Your task to perform on an android device: turn on sleep mode Image 0: 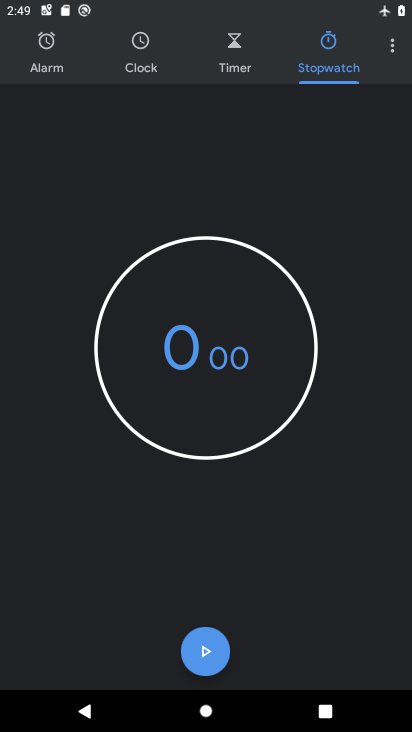
Step 0: press home button
Your task to perform on an android device: turn on sleep mode Image 1: 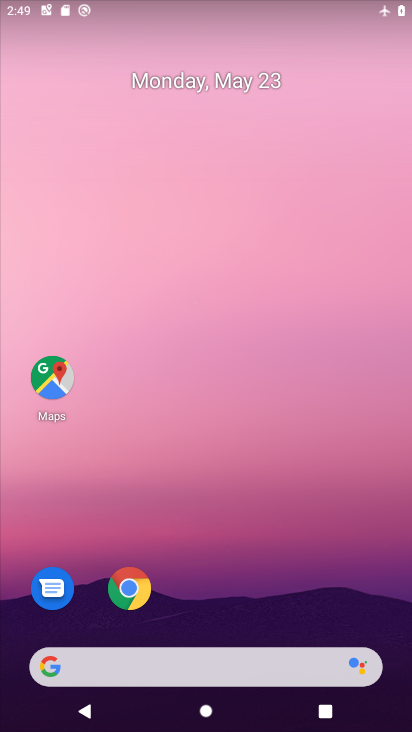
Step 1: drag from (181, 590) to (352, 16)
Your task to perform on an android device: turn on sleep mode Image 2: 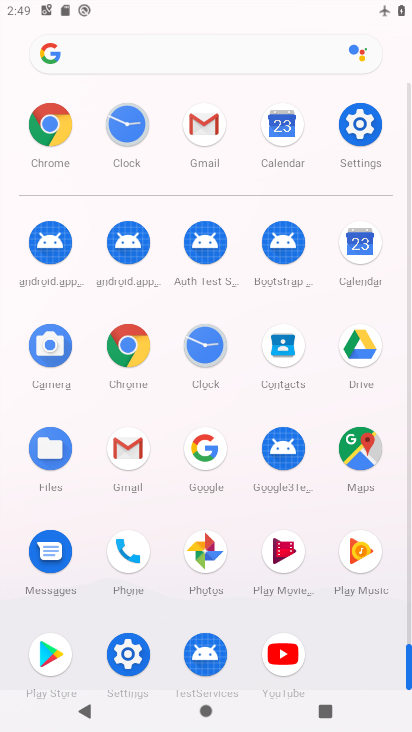
Step 2: click (361, 163)
Your task to perform on an android device: turn on sleep mode Image 3: 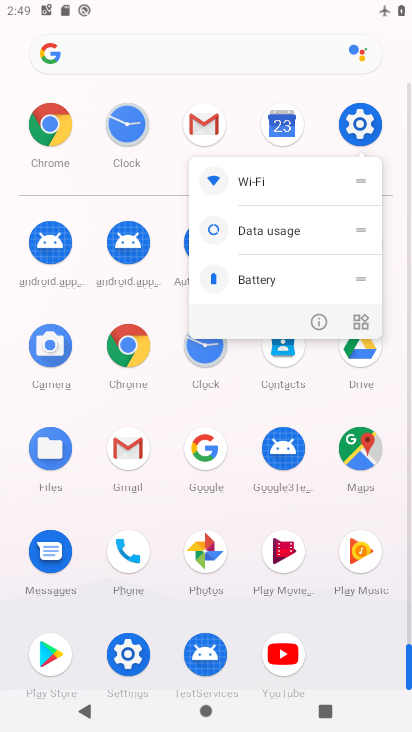
Step 3: click (364, 116)
Your task to perform on an android device: turn on sleep mode Image 4: 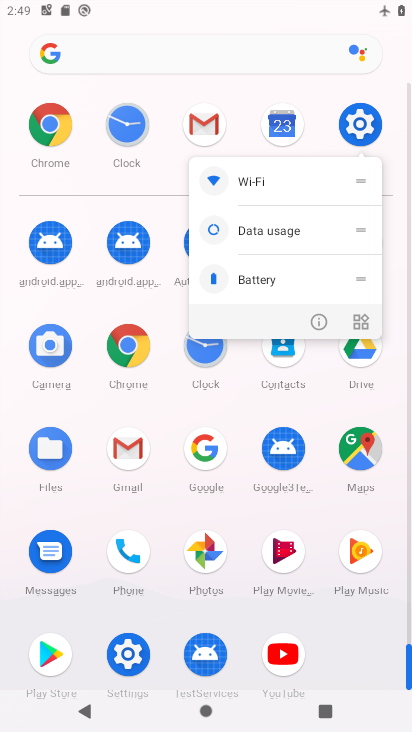
Step 4: click (317, 308)
Your task to perform on an android device: turn on sleep mode Image 5: 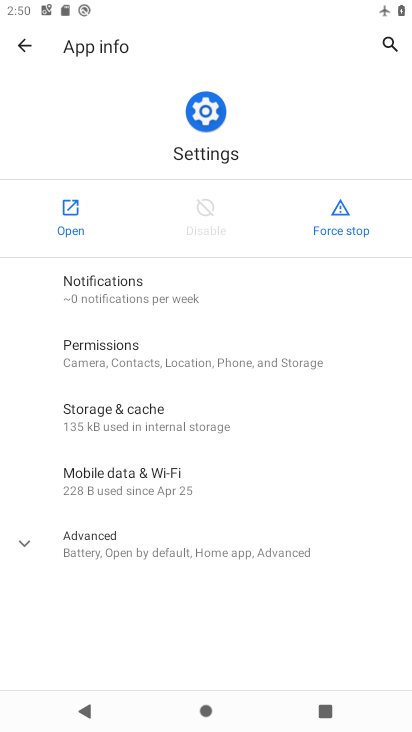
Step 5: click (65, 205)
Your task to perform on an android device: turn on sleep mode Image 6: 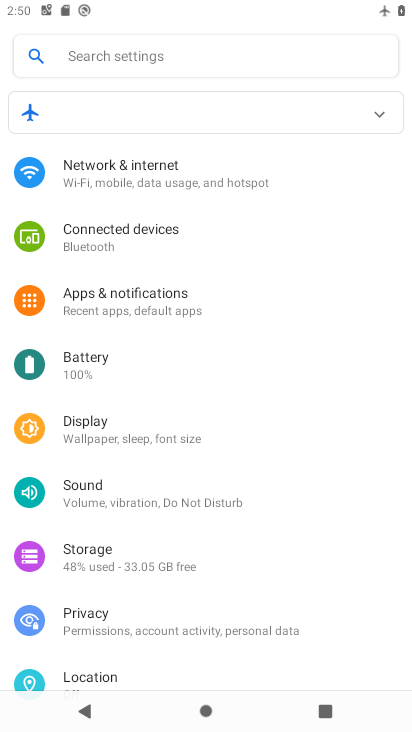
Step 6: click (118, 433)
Your task to perform on an android device: turn on sleep mode Image 7: 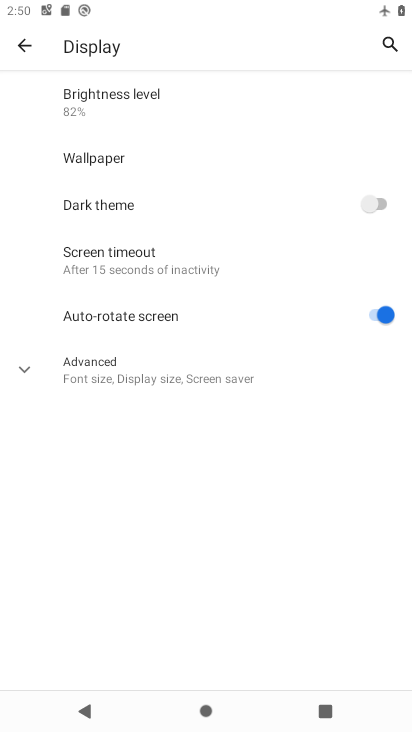
Step 7: click (189, 270)
Your task to perform on an android device: turn on sleep mode Image 8: 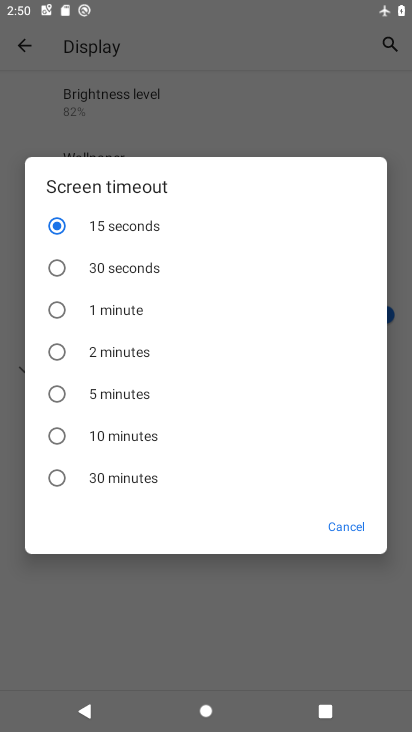
Step 8: click (89, 275)
Your task to perform on an android device: turn on sleep mode Image 9: 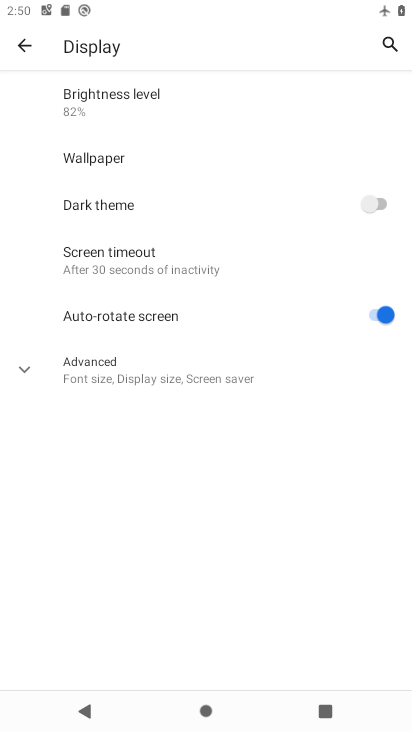
Step 9: task complete